Your task to perform on an android device: Show me recent news Image 0: 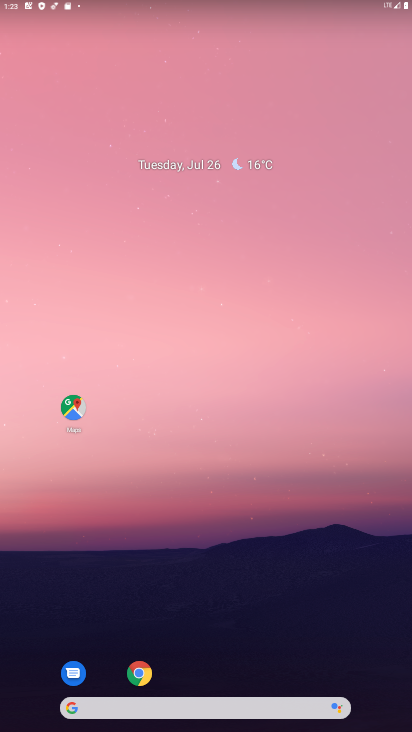
Step 0: drag from (1, 199) to (404, 172)
Your task to perform on an android device: Show me recent news Image 1: 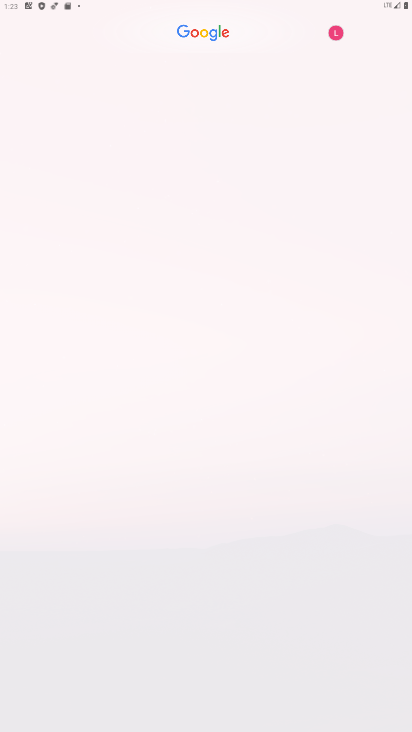
Step 1: click (302, 134)
Your task to perform on an android device: Show me recent news Image 2: 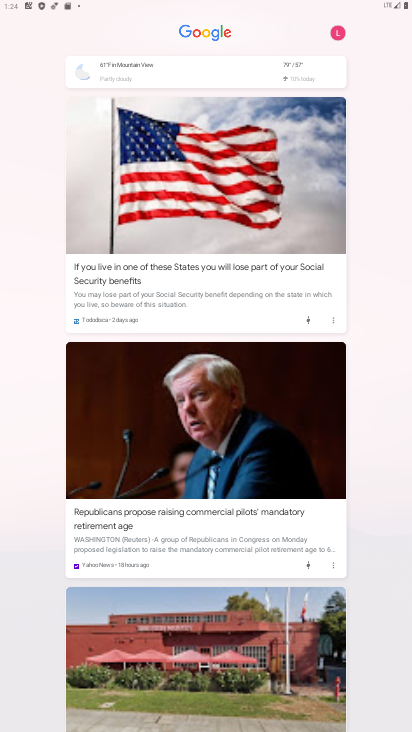
Step 2: task complete